Your task to perform on an android device: check battery use Image 0: 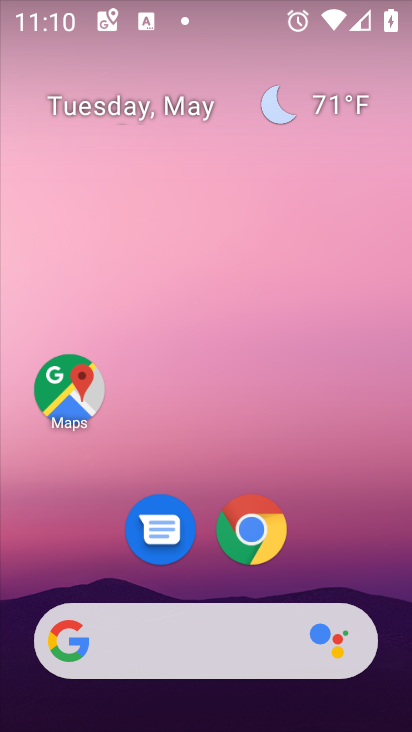
Step 0: drag from (229, 574) to (140, 280)
Your task to perform on an android device: check battery use Image 1: 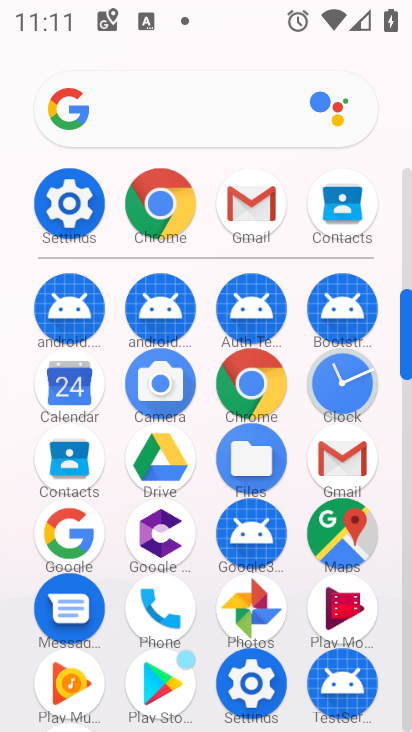
Step 1: click (74, 214)
Your task to perform on an android device: check battery use Image 2: 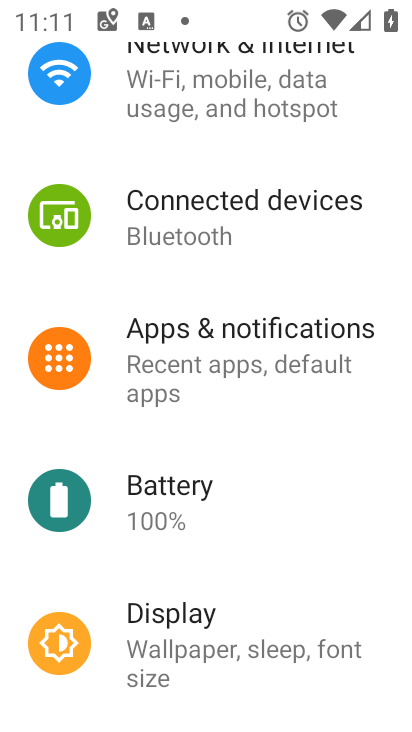
Step 2: click (220, 502)
Your task to perform on an android device: check battery use Image 3: 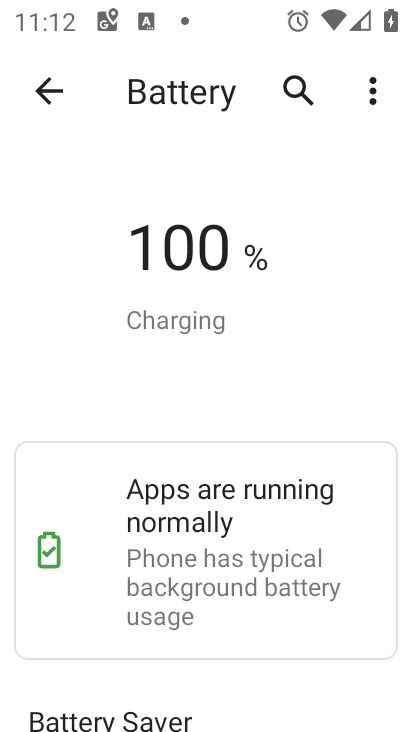
Step 3: task complete